Your task to perform on an android device: toggle airplane mode Image 0: 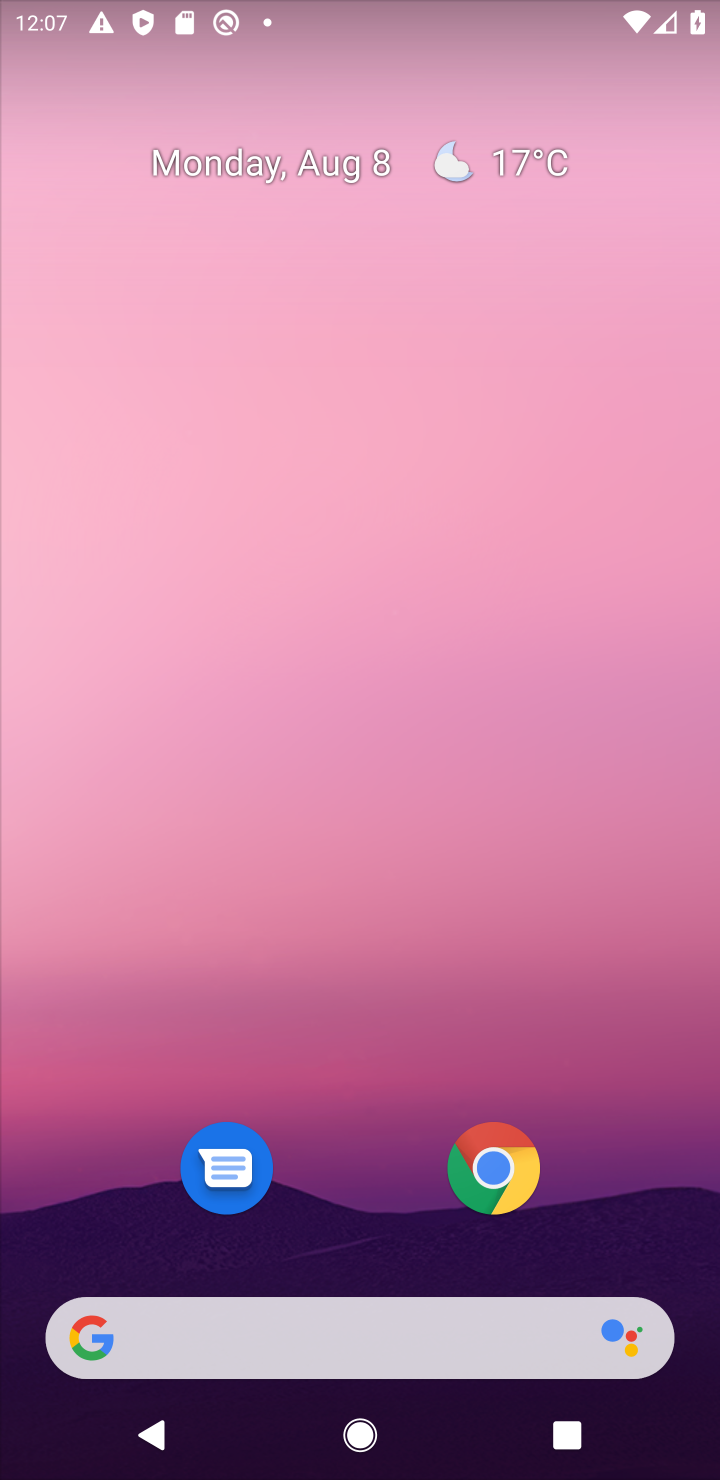
Step 0: drag from (39, 1456) to (474, 548)
Your task to perform on an android device: toggle airplane mode Image 1: 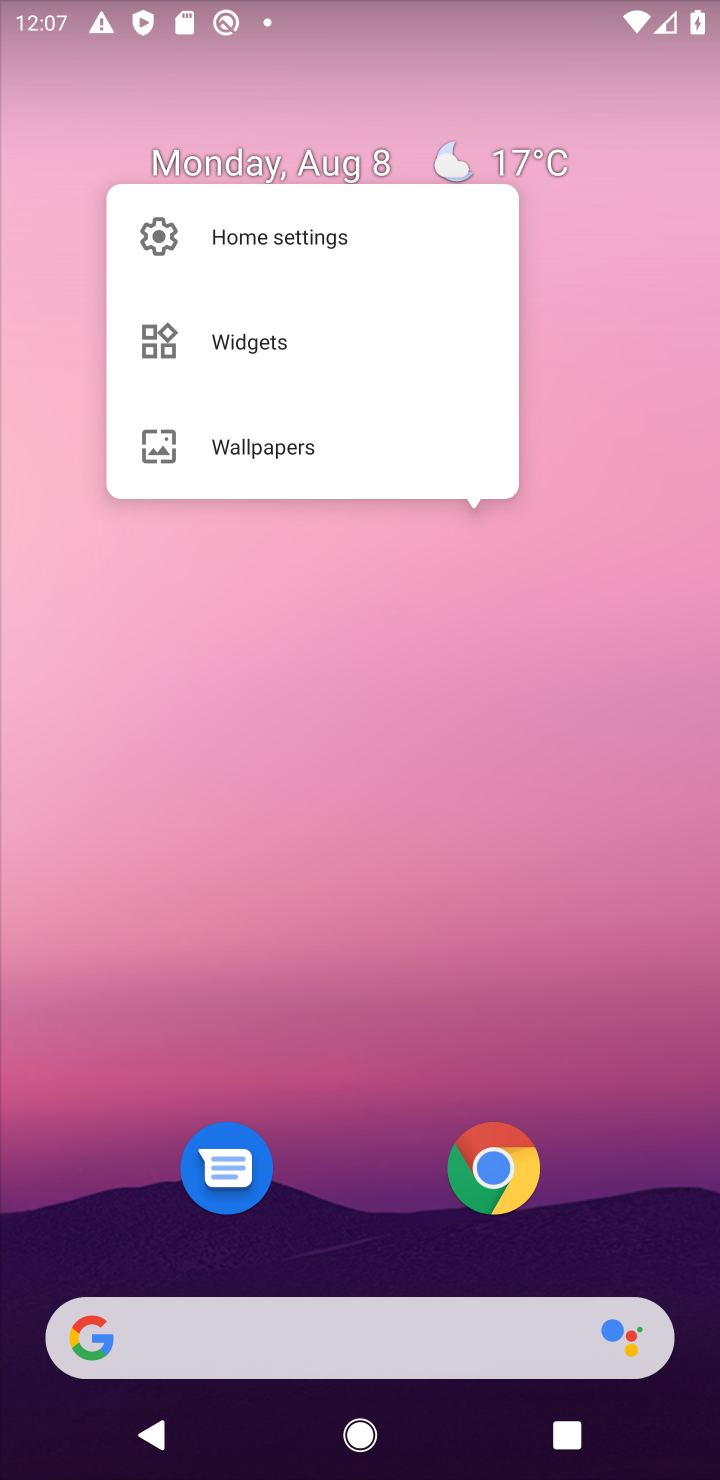
Step 1: click (29, 1410)
Your task to perform on an android device: toggle airplane mode Image 2: 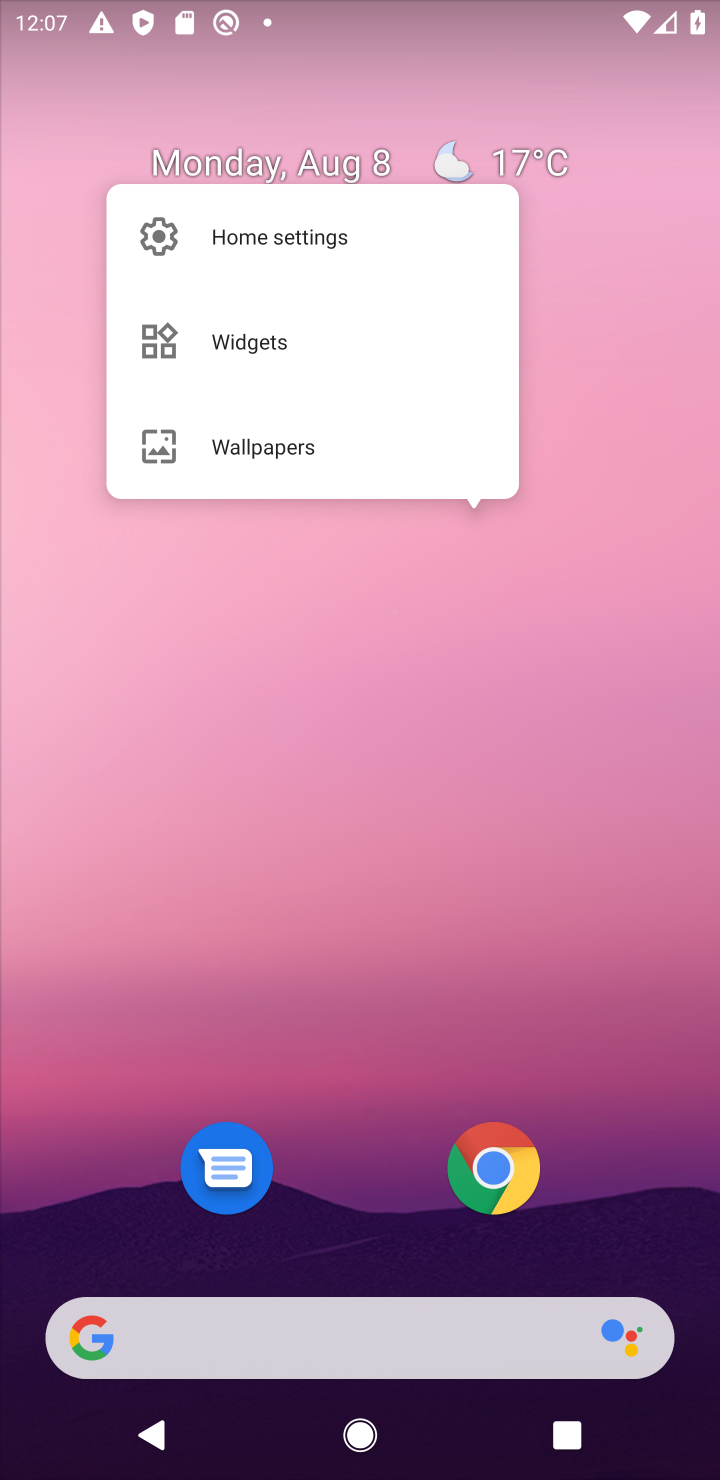
Step 2: drag from (46, 1378) to (322, 609)
Your task to perform on an android device: toggle airplane mode Image 3: 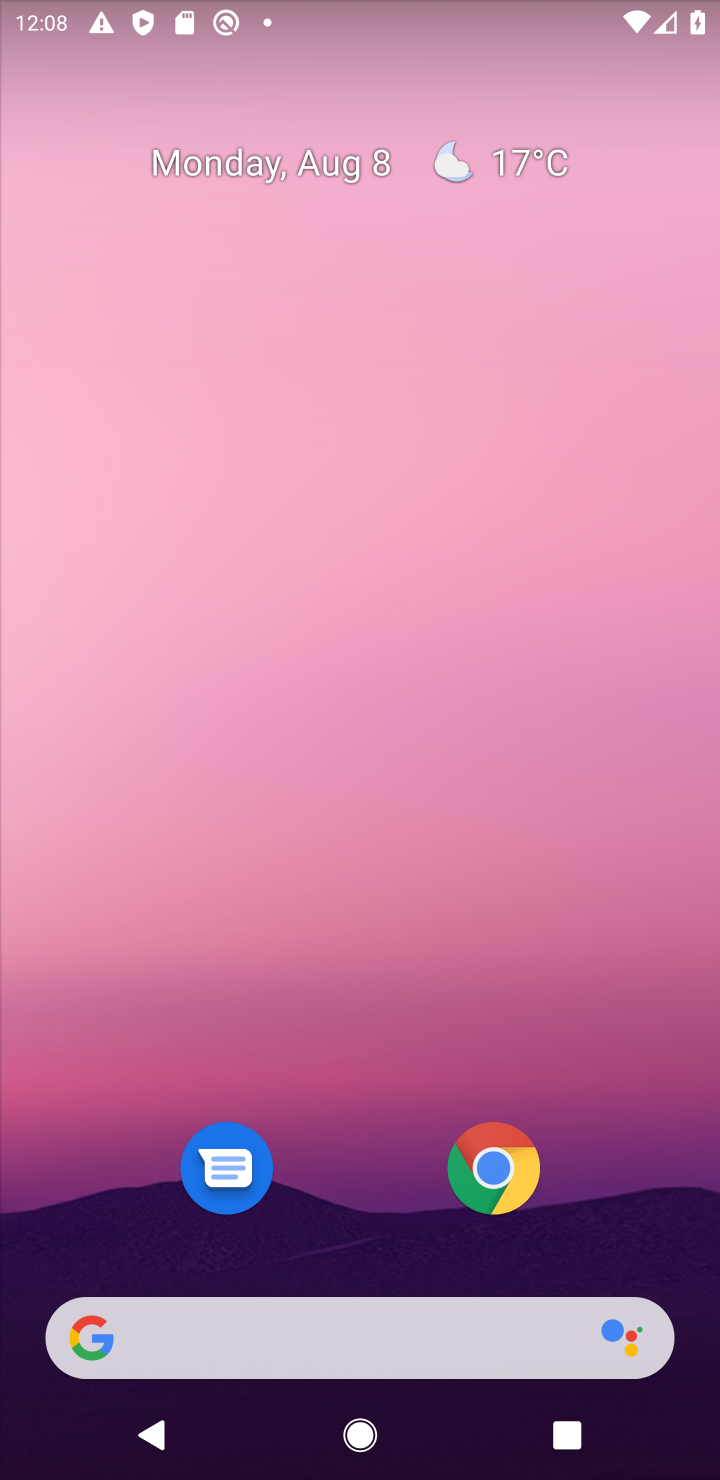
Step 3: drag from (74, 1379) to (382, 185)
Your task to perform on an android device: toggle airplane mode Image 4: 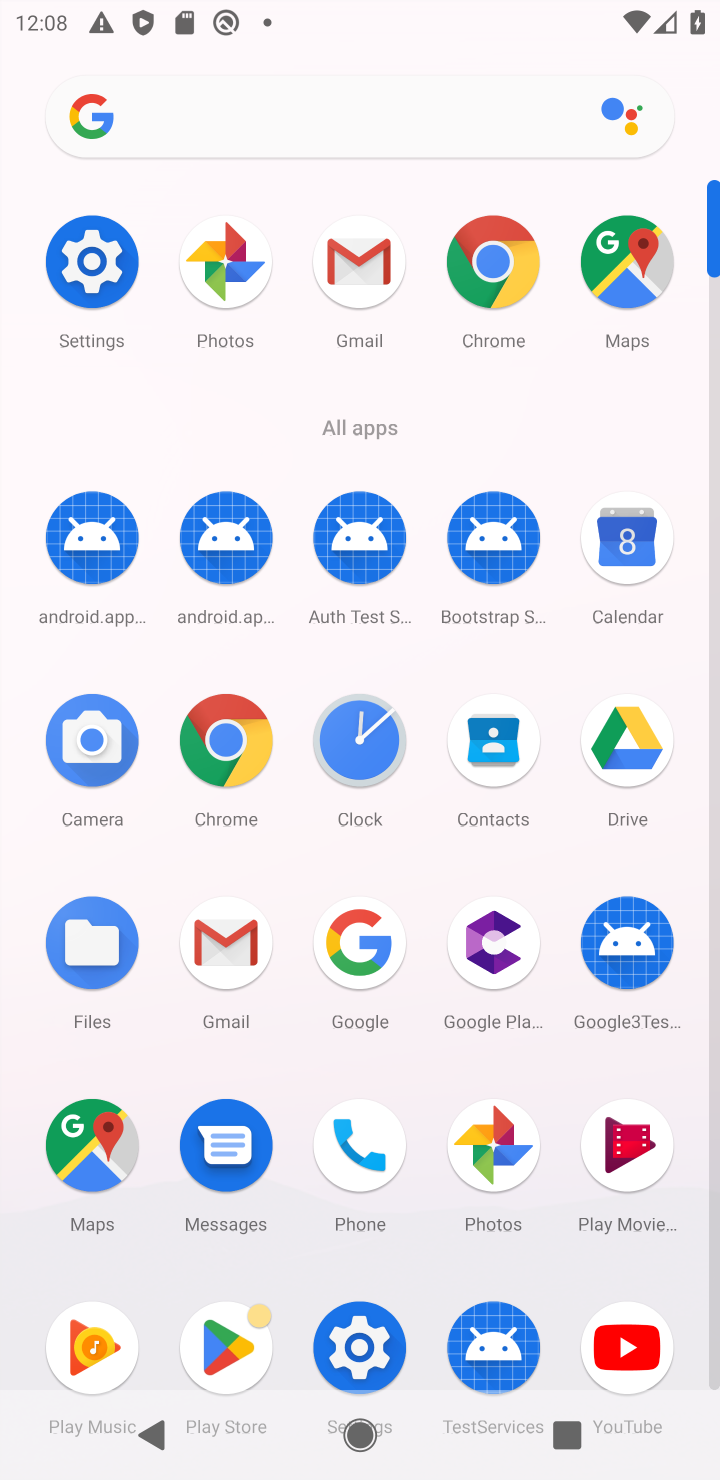
Step 4: click (352, 1335)
Your task to perform on an android device: toggle airplane mode Image 5: 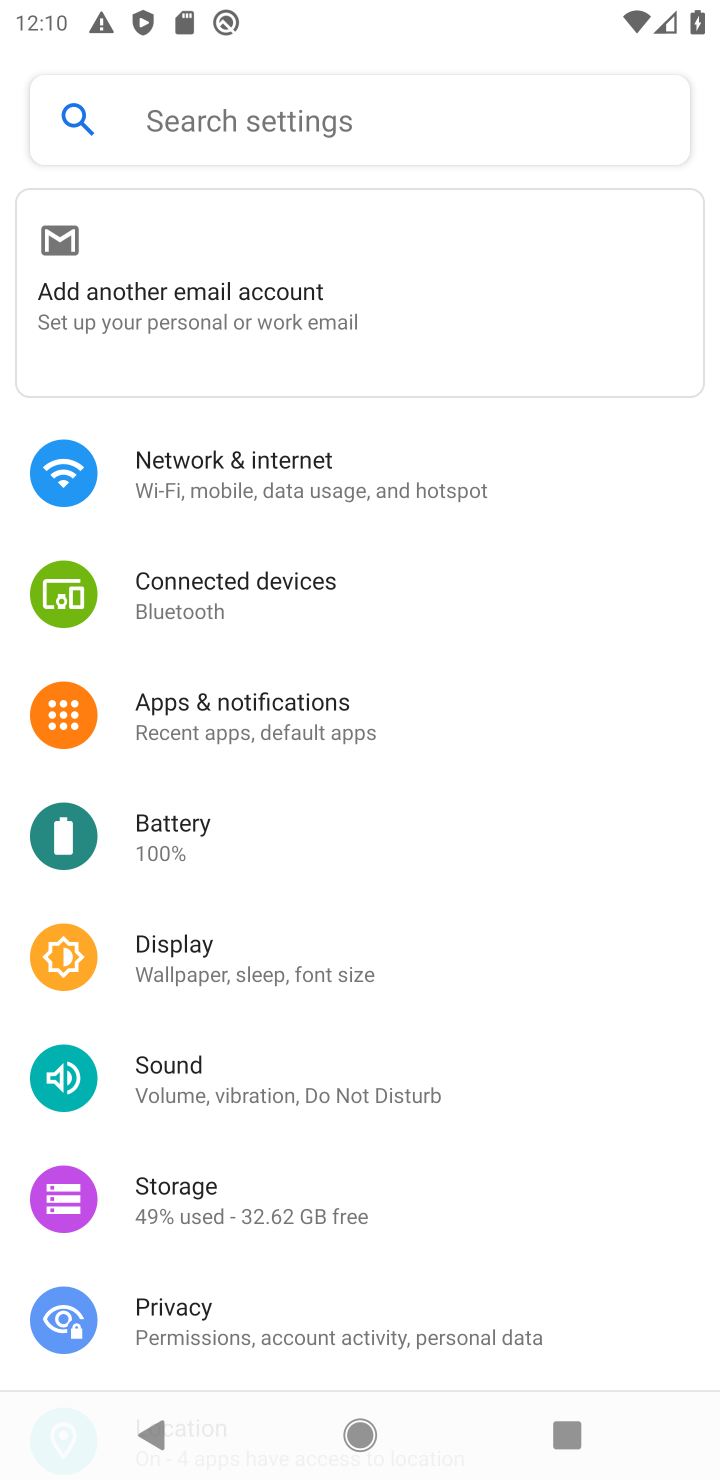
Step 5: click (255, 484)
Your task to perform on an android device: toggle airplane mode Image 6: 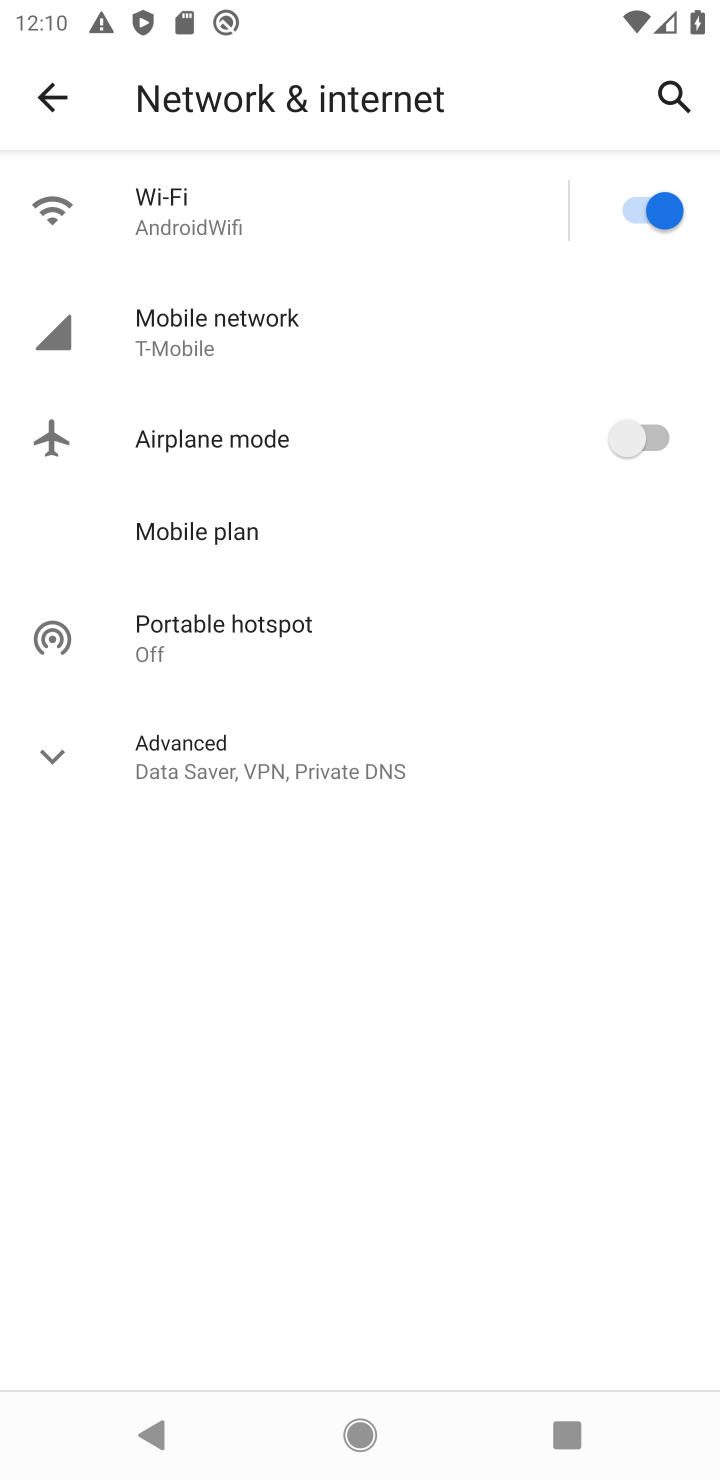
Step 6: task complete